Your task to perform on an android device: See recent photos Image 0: 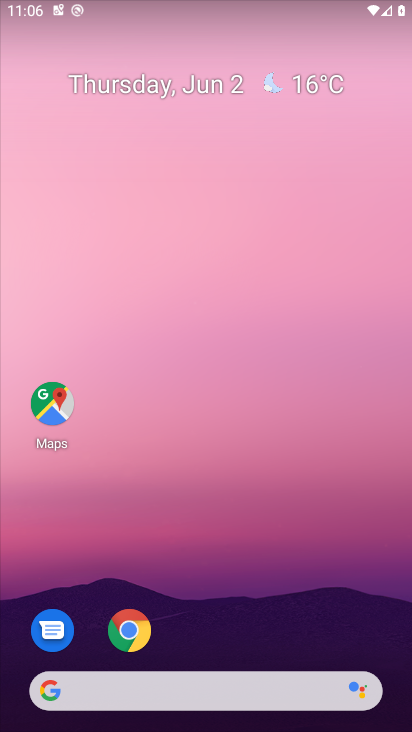
Step 0: drag from (209, 628) to (284, 78)
Your task to perform on an android device: See recent photos Image 1: 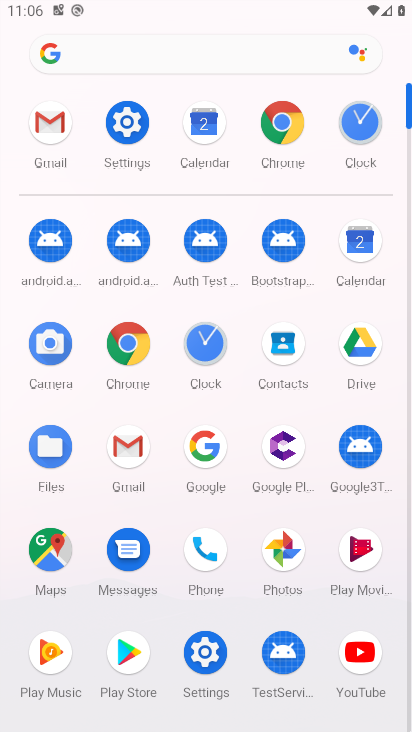
Step 1: click (281, 561)
Your task to perform on an android device: See recent photos Image 2: 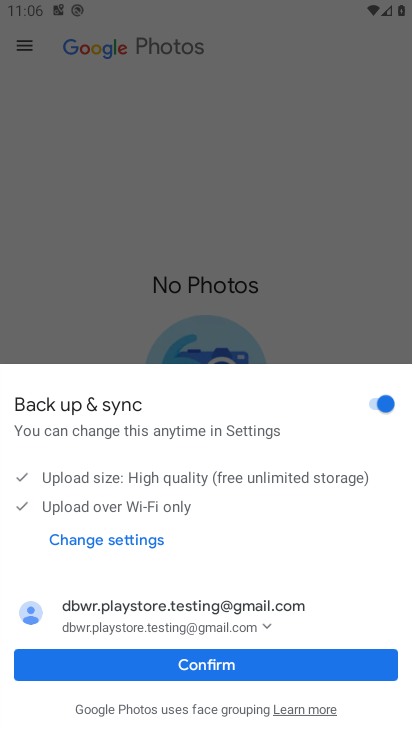
Step 2: click (233, 670)
Your task to perform on an android device: See recent photos Image 3: 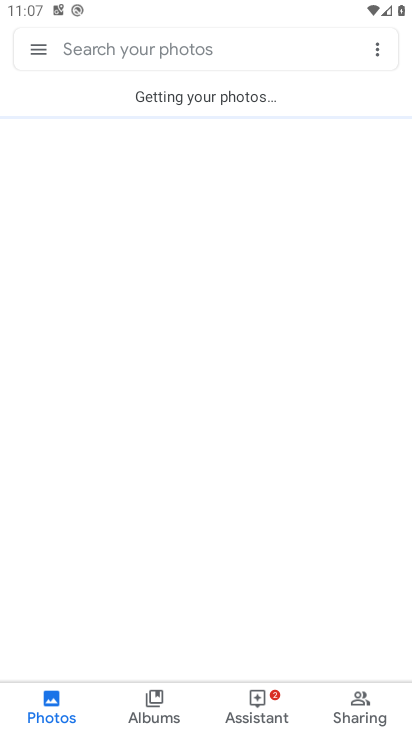
Step 3: click (125, 350)
Your task to perform on an android device: See recent photos Image 4: 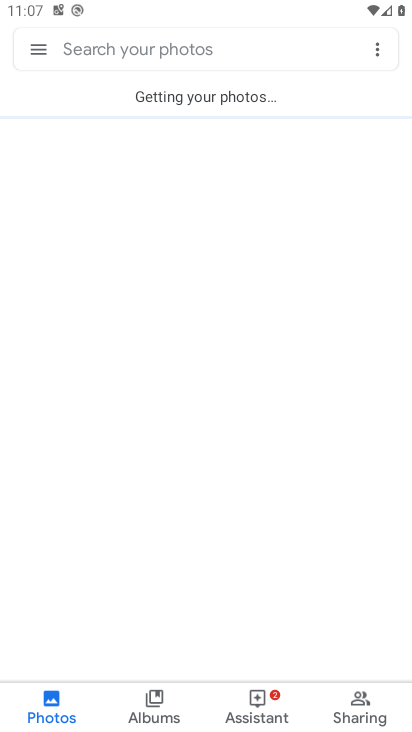
Step 4: click (37, 45)
Your task to perform on an android device: See recent photos Image 5: 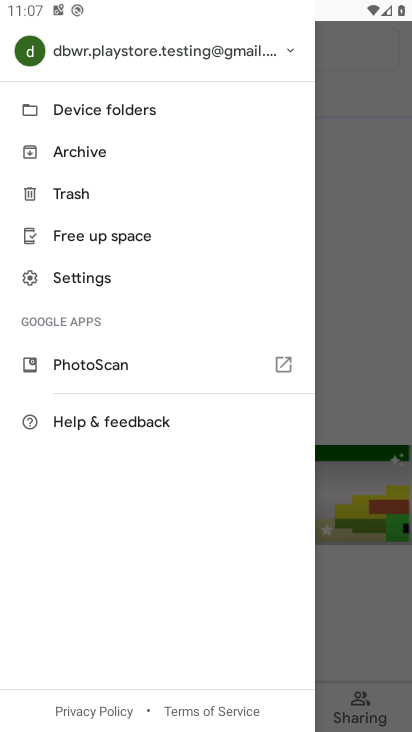
Step 5: click (364, 370)
Your task to perform on an android device: See recent photos Image 6: 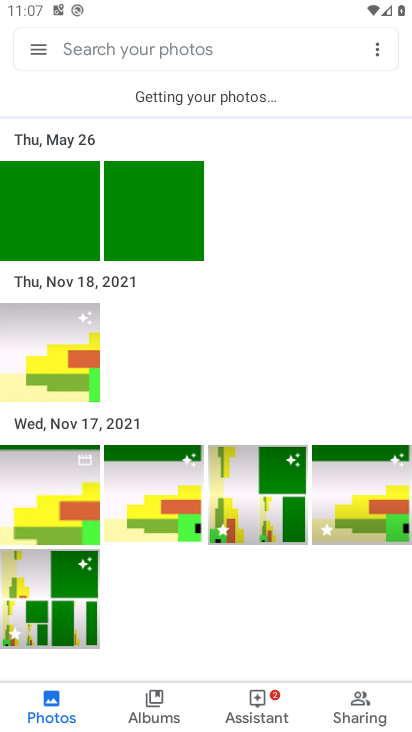
Step 6: task complete